Your task to perform on an android device: toggle notifications settings in the gmail app Image 0: 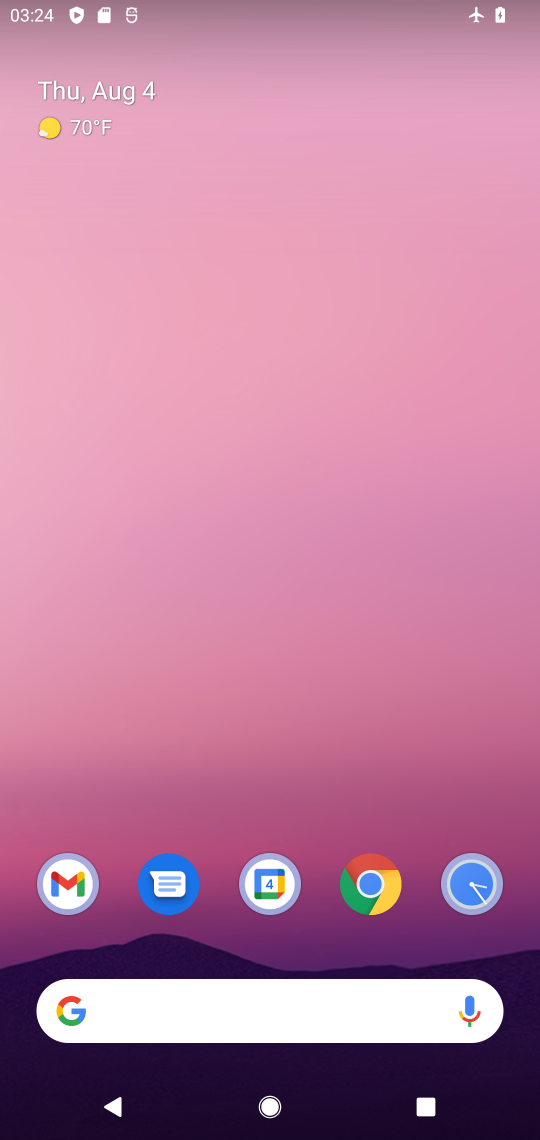
Step 0: press home button
Your task to perform on an android device: toggle notifications settings in the gmail app Image 1: 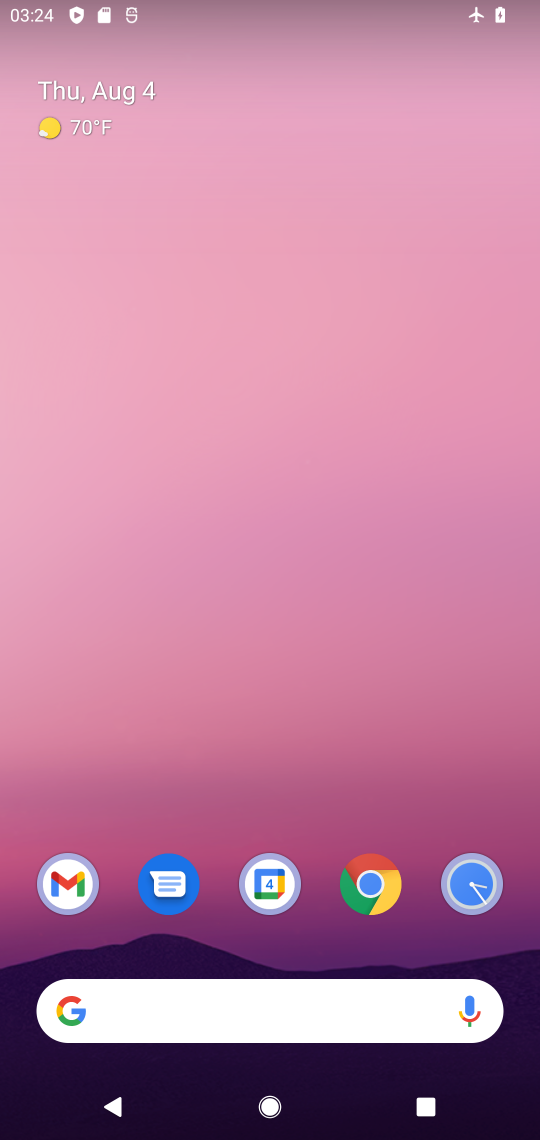
Step 1: drag from (326, 829) to (384, 340)
Your task to perform on an android device: toggle notifications settings in the gmail app Image 2: 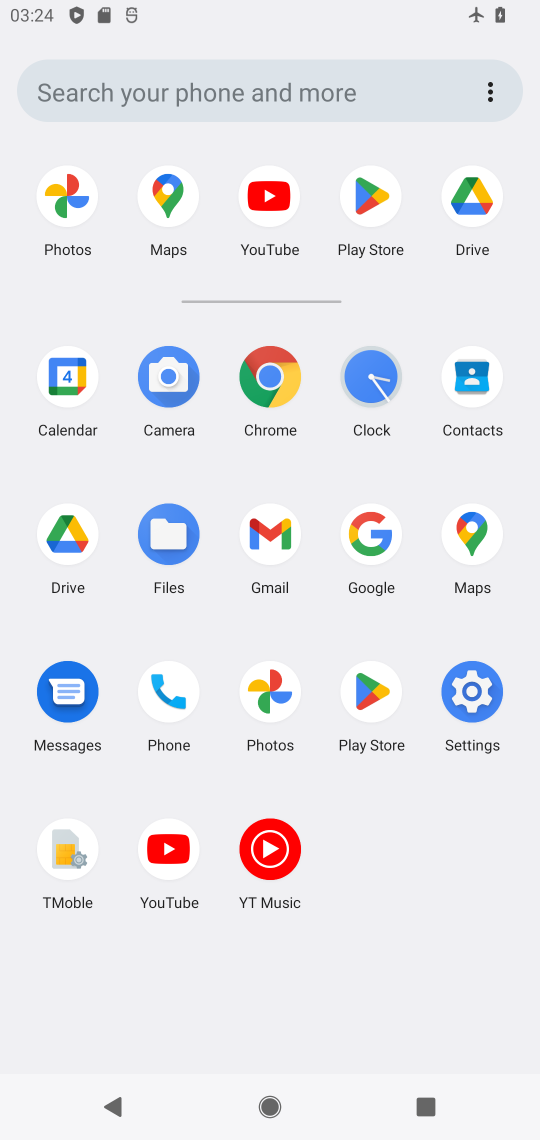
Step 2: click (267, 537)
Your task to perform on an android device: toggle notifications settings in the gmail app Image 3: 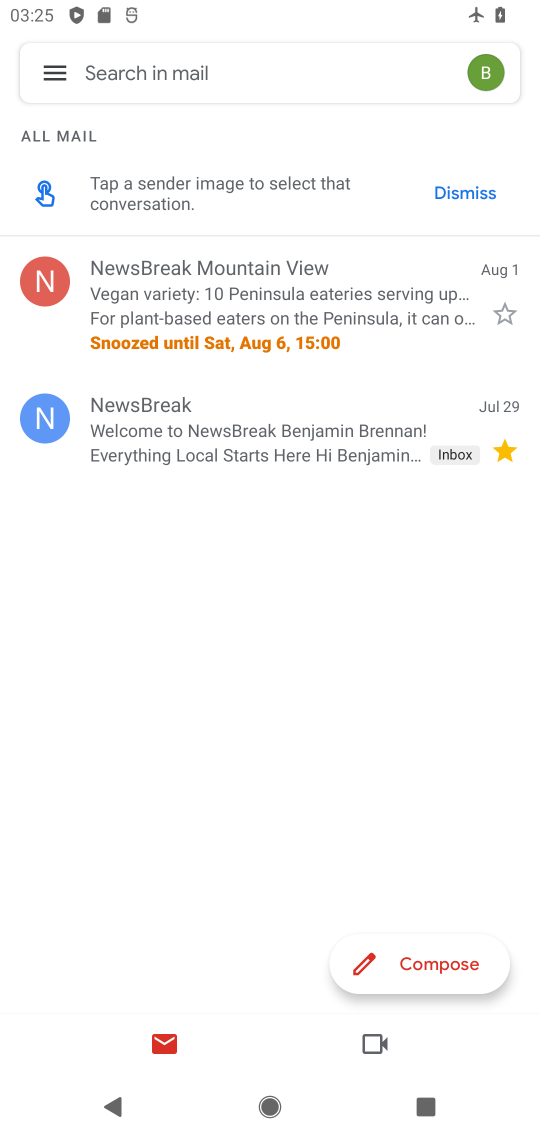
Step 3: click (58, 69)
Your task to perform on an android device: toggle notifications settings in the gmail app Image 4: 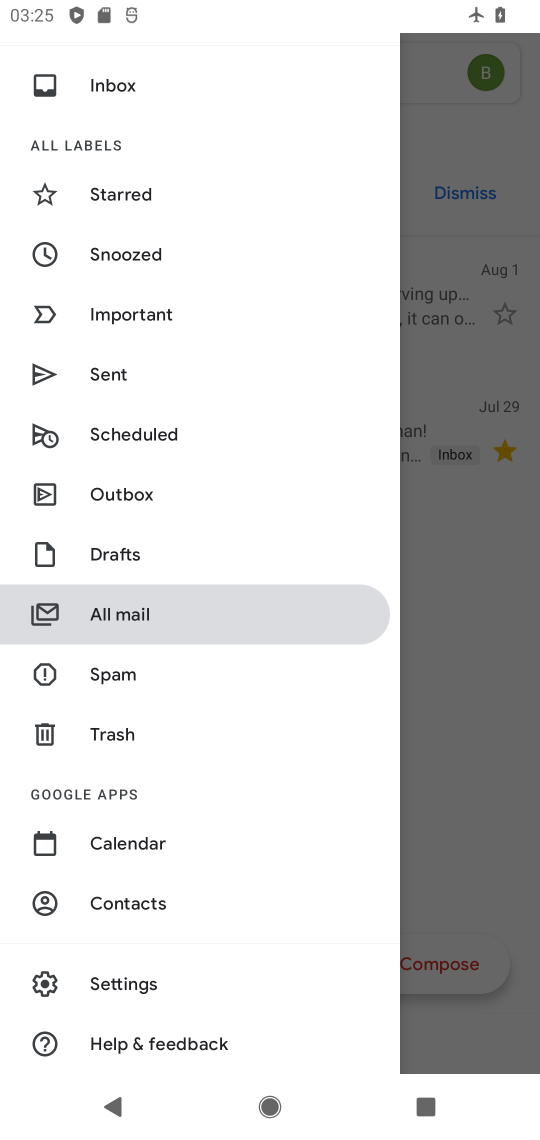
Step 4: drag from (277, 787) to (275, 646)
Your task to perform on an android device: toggle notifications settings in the gmail app Image 5: 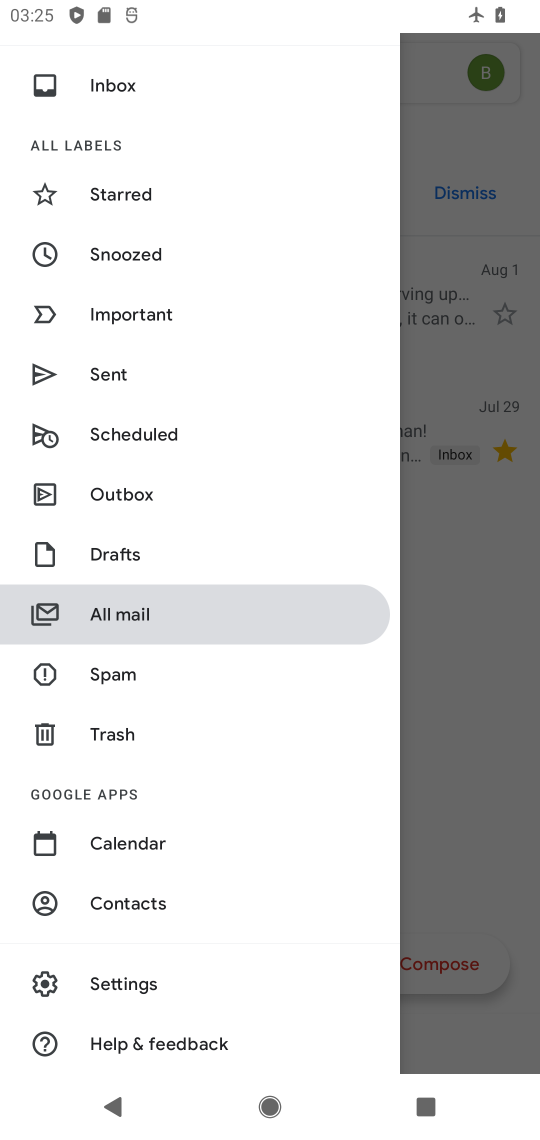
Step 5: click (172, 986)
Your task to perform on an android device: toggle notifications settings in the gmail app Image 6: 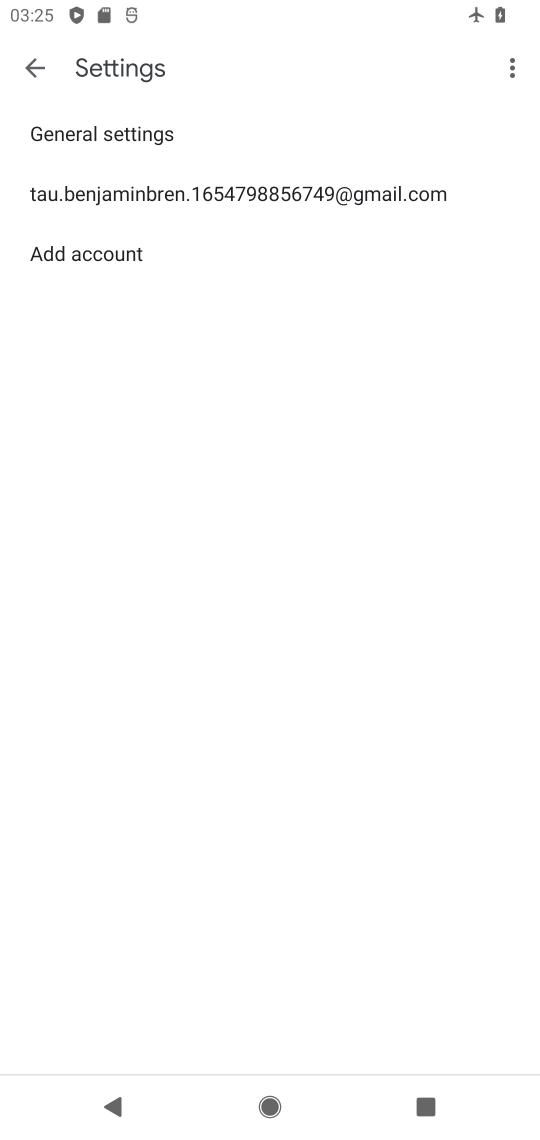
Step 6: click (234, 189)
Your task to perform on an android device: toggle notifications settings in the gmail app Image 7: 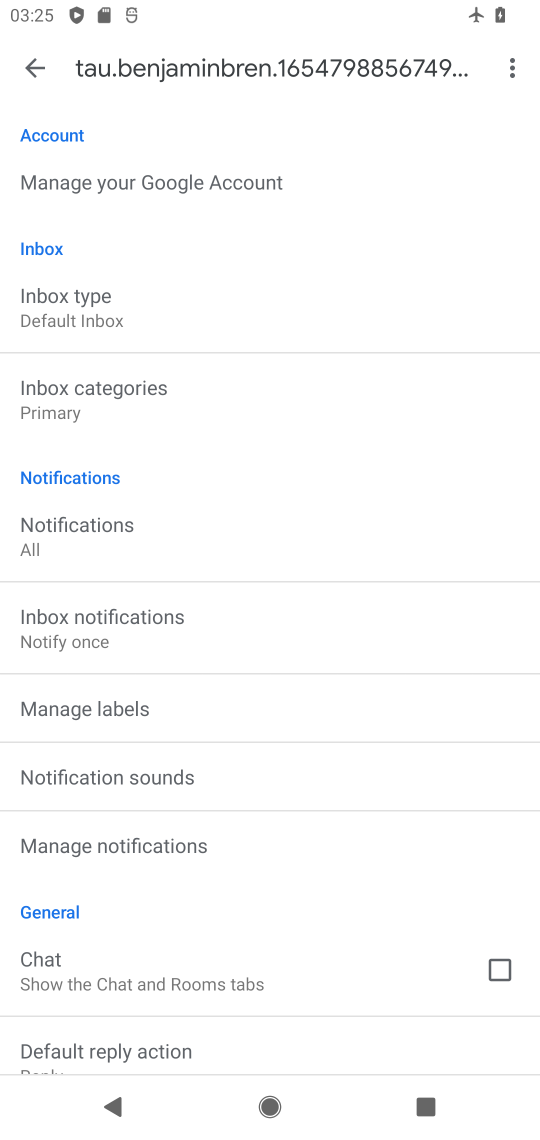
Step 7: drag from (361, 929) to (360, 761)
Your task to perform on an android device: toggle notifications settings in the gmail app Image 8: 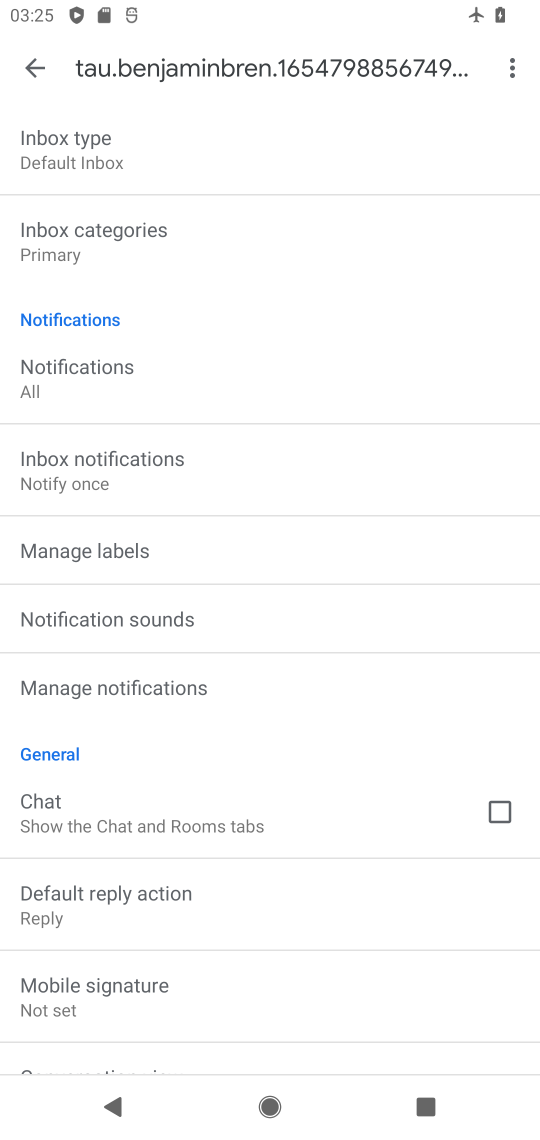
Step 8: drag from (385, 947) to (378, 711)
Your task to perform on an android device: toggle notifications settings in the gmail app Image 9: 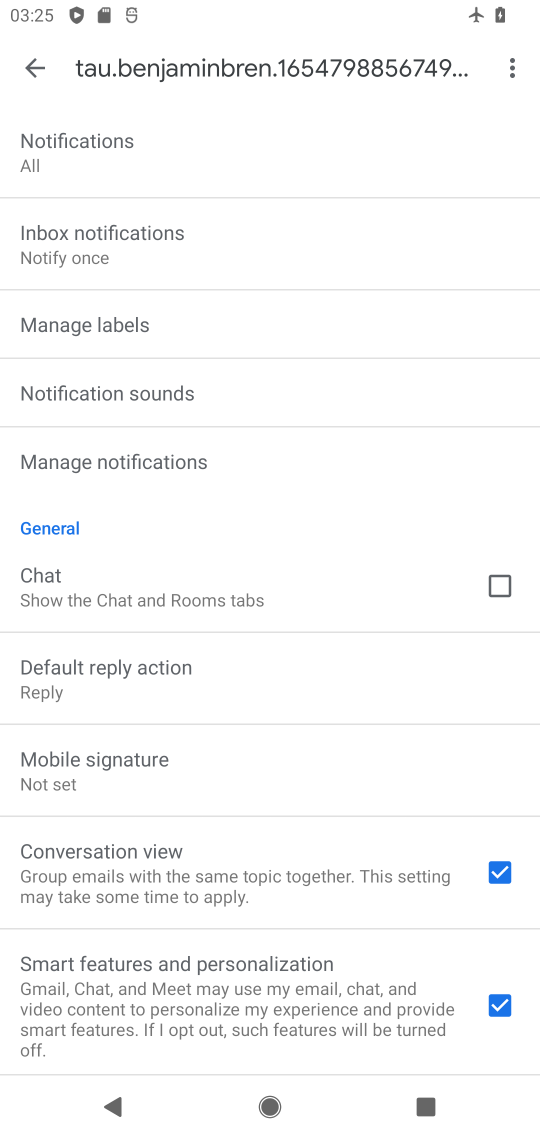
Step 9: drag from (327, 969) to (334, 719)
Your task to perform on an android device: toggle notifications settings in the gmail app Image 10: 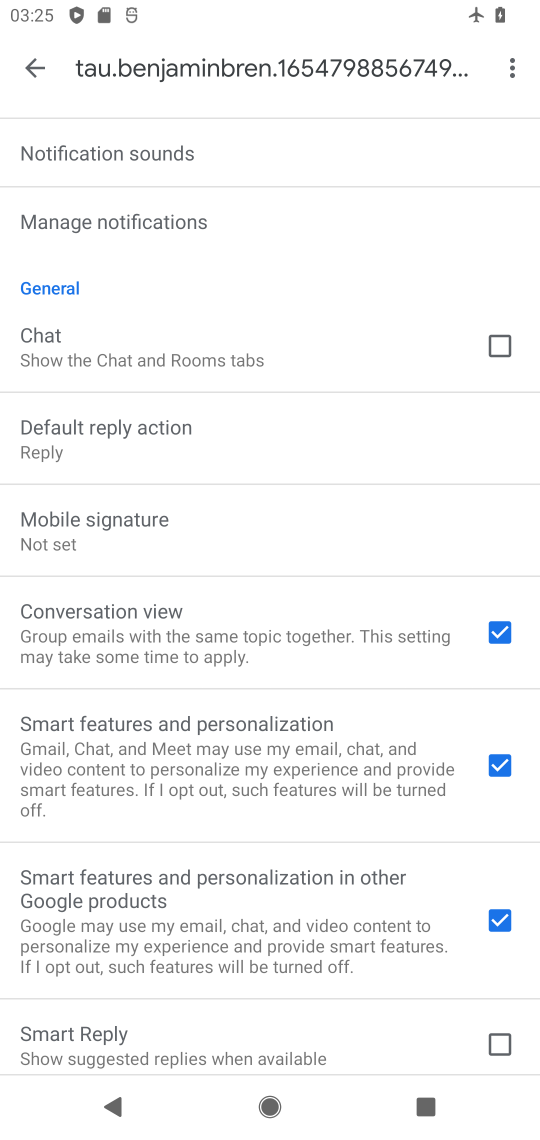
Step 10: drag from (338, 996) to (340, 717)
Your task to perform on an android device: toggle notifications settings in the gmail app Image 11: 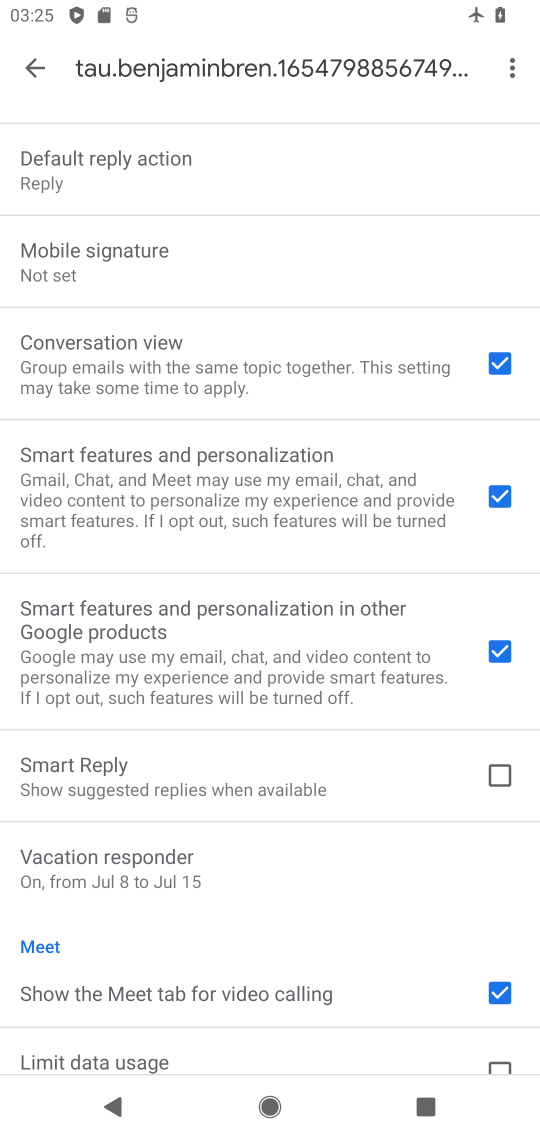
Step 11: drag from (371, 880) to (411, 548)
Your task to perform on an android device: toggle notifications settings in the gmail app Image 12: 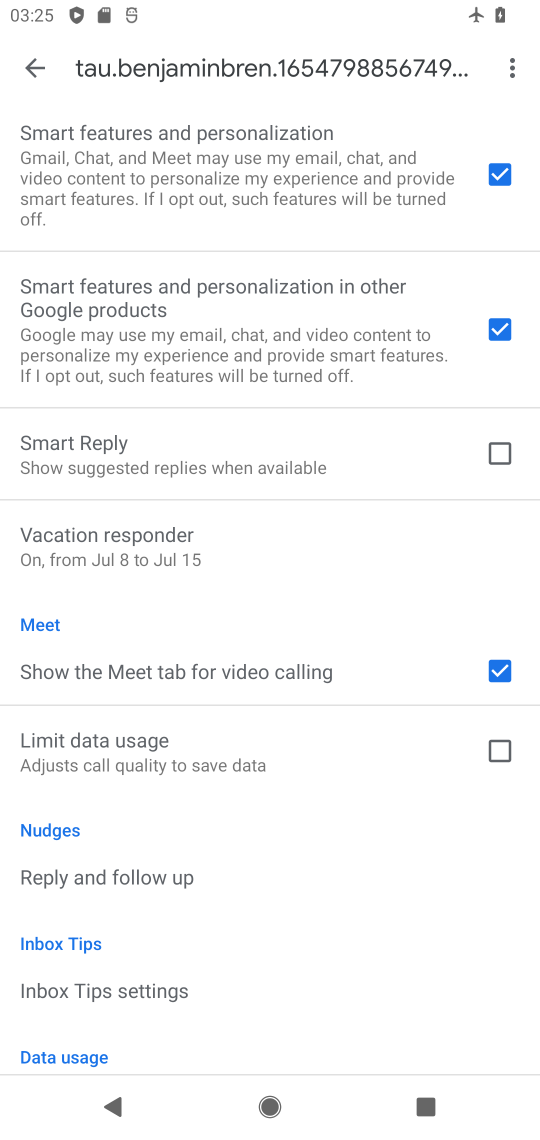
Step 12: drag from (368, 880) to (368, 575)
Your task to perform on an android device: toggle notifications settings in the gmail app Image 13: 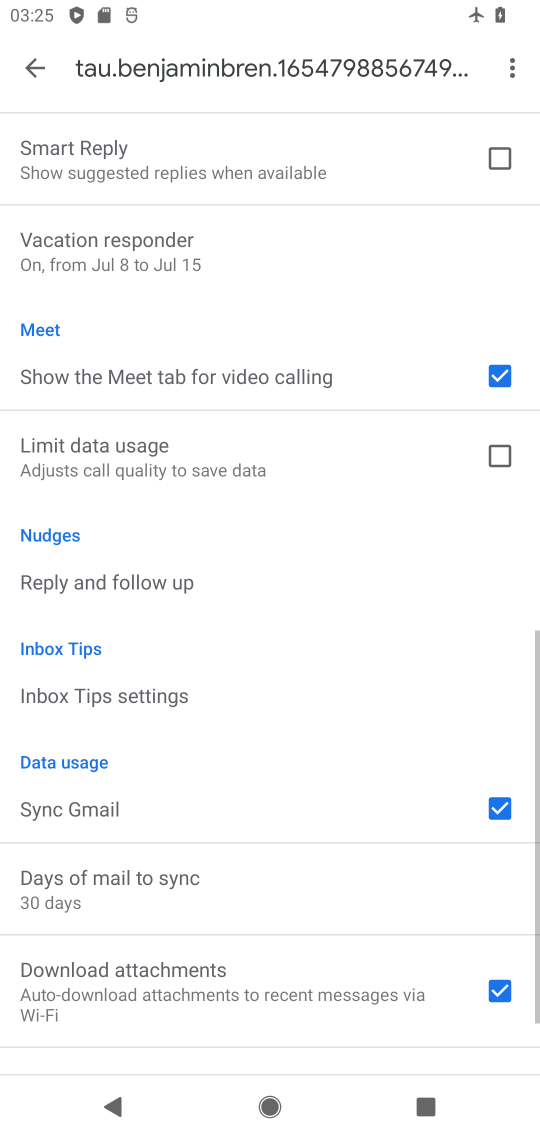
Step 13: drag from (377, 397) to (383, 606)
Your task to perform on an android device: toggle notifications settings in the gmail app Image 14: 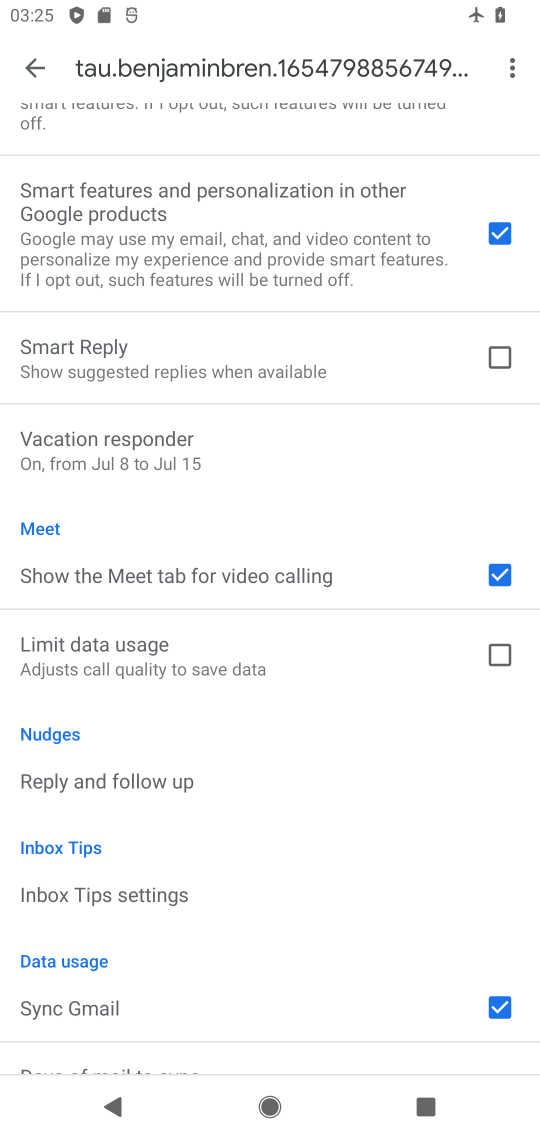
Step 14: drag from (365, 308) to (391, 619)
Your task to perform on an android device: toggle notifications settings in the gmail app Image 15: 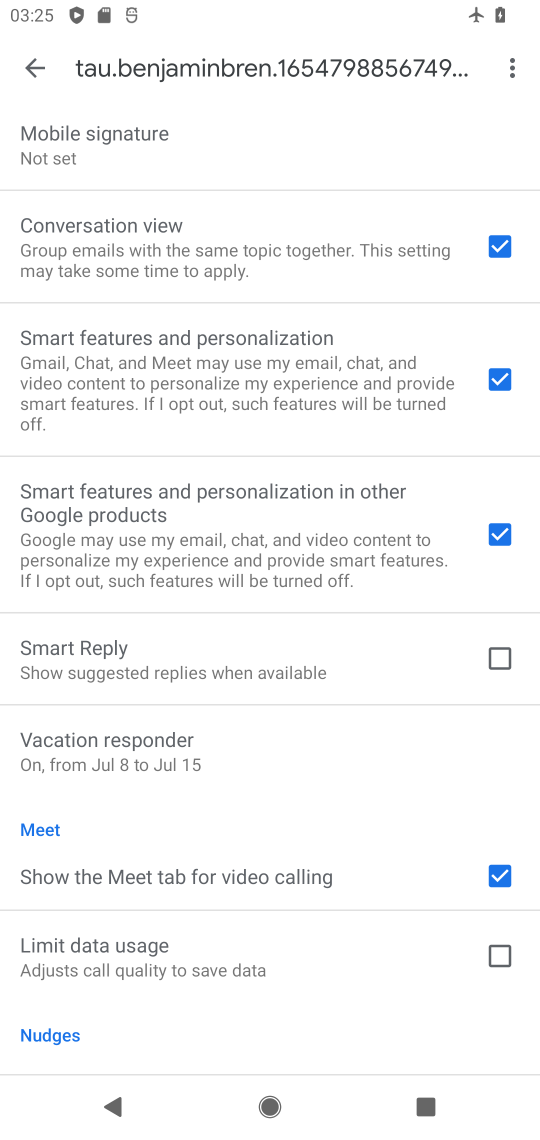
Step 15: drag from (349, 176) to (358, 586)
Your task to perform on an android device: toggle notifications settings in the gmail app Image 16: 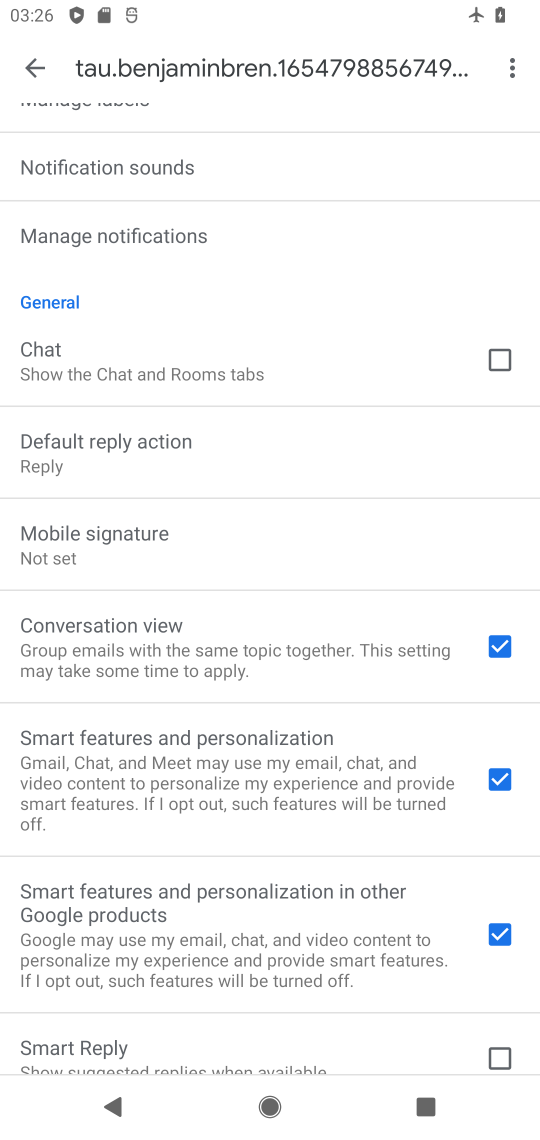
Step 16: click (229, 227)
Your task to perform on an android device: toggle notifications settings in the gmail app Image 17: 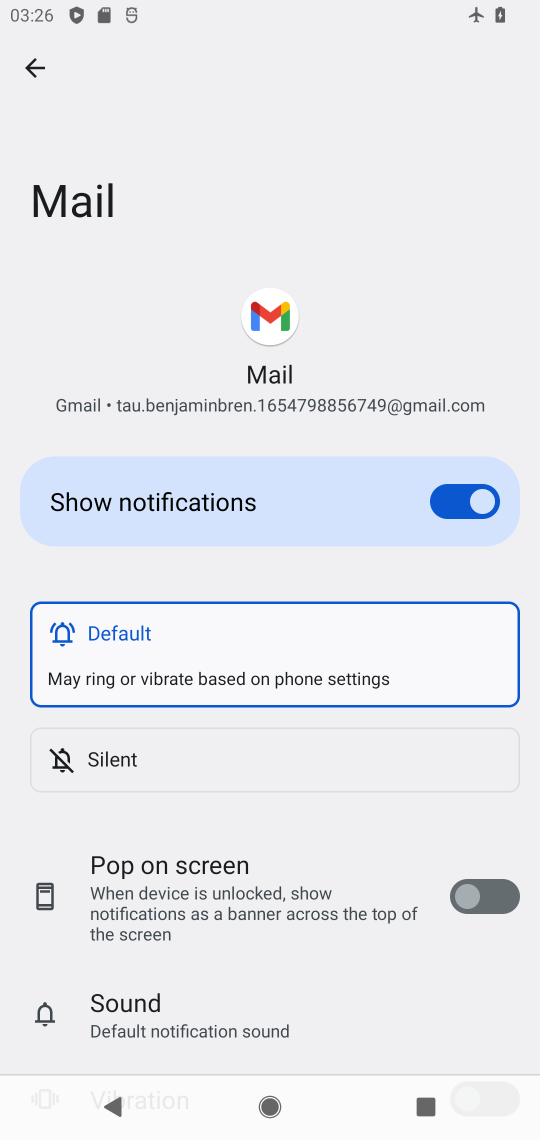
Step 17: click (487, 510)
Your task to perform on an android device: toggle notifications settings in the gmail app Image 18: 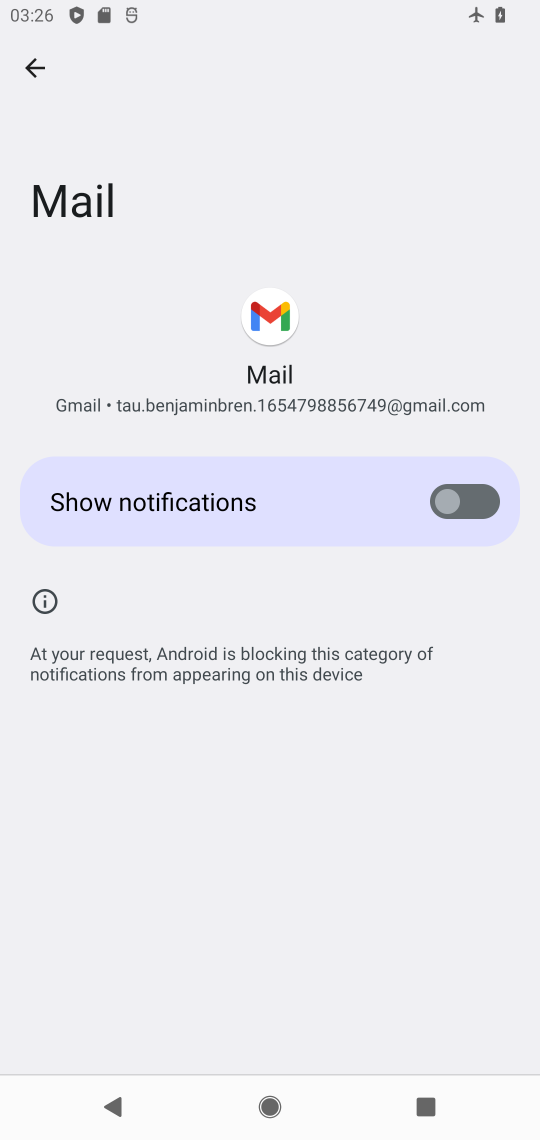
Step 18: task complete